Your task to perform on an android device: Open privacy settings Image 0: 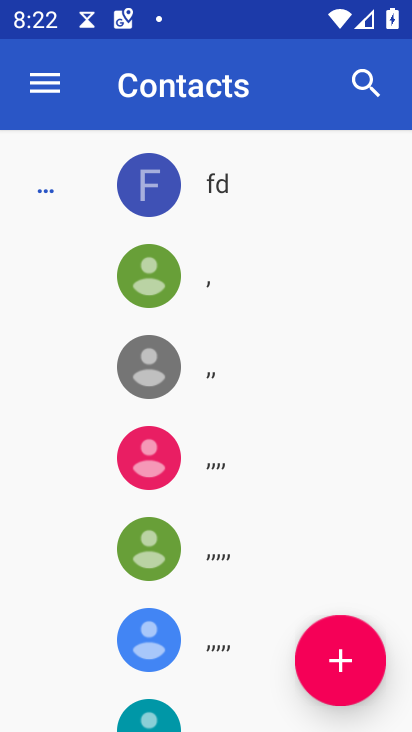
Step 0: press home button
Your task to perform on an android device: Open privacy settings Image 1: 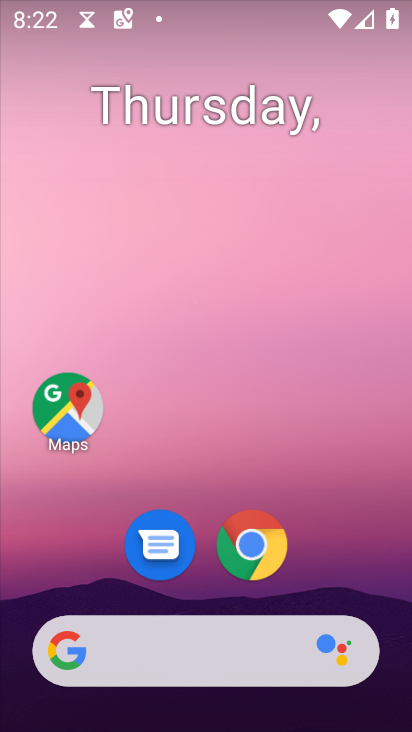
Step 1: drag from (317, 550) to (283, 195)
Your task to perform on an android device: Open privacy settings Image 2: 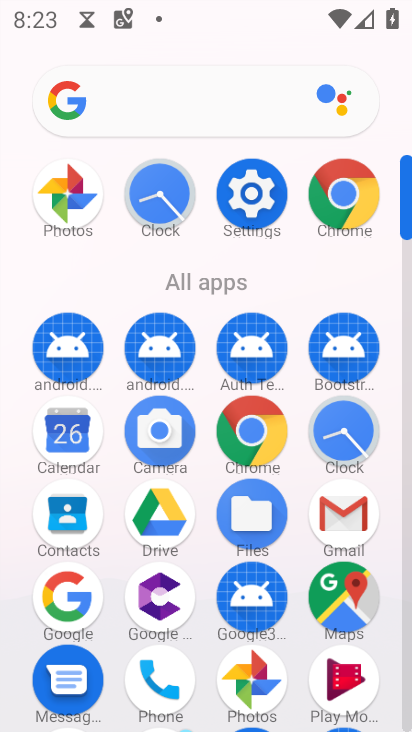
Step 2: click (251, 193)
Your task to perform on an android device: Open privacy settings Image 3: 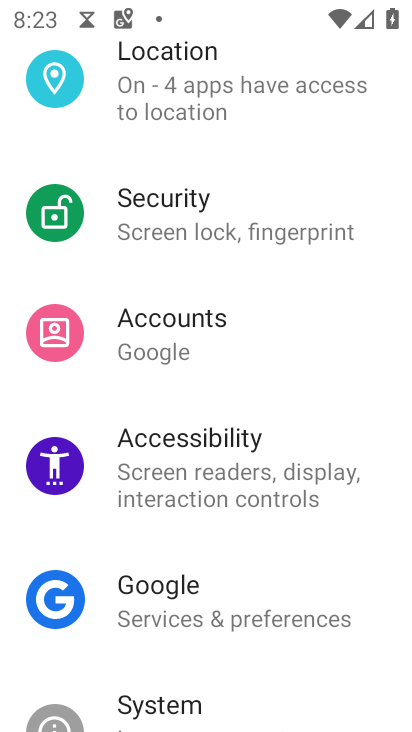
Step 3: drag from (234, 302) to (221, 417)
Your task to perform on an android device: Open privacy settings Image 4: 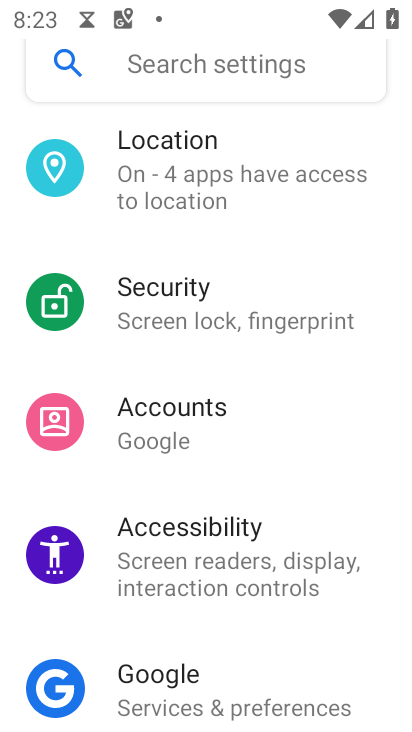
Step 4: drag from (248, 257) to (237, 411)
Your task to perform on an android device: Open privacy settings Image 5: 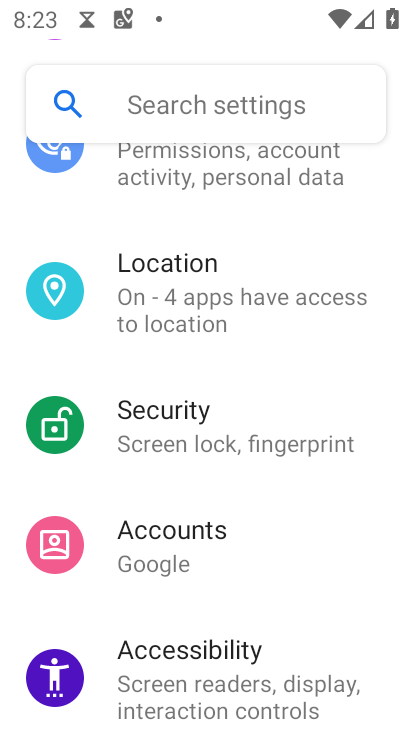
Step 5: drag from (239, 197) to (227, 472)
Your task to perform on an android device: Open privacy settings Image 6: 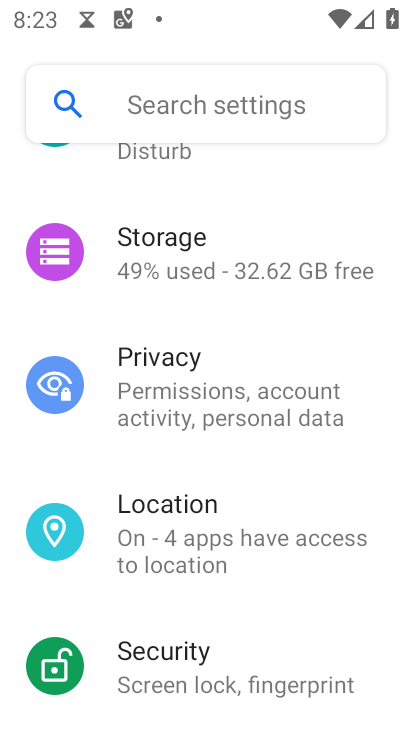
Step 6: click (162, 350)
Your task to perform on an android device: Open privacy settings Image 7: 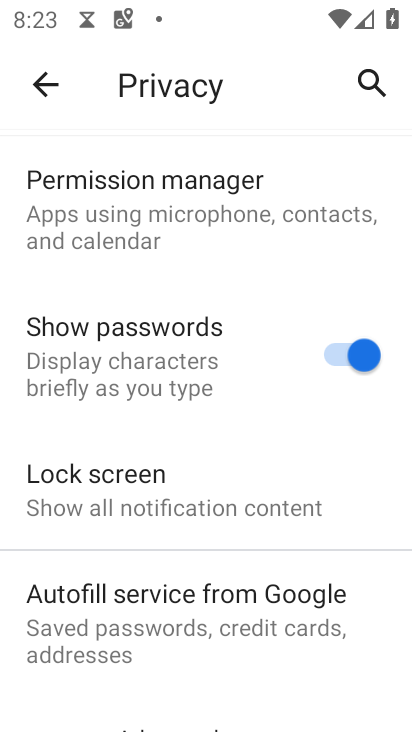
Step 7: task complete